Your task to perform on an android device: Go to notification settings Image 0: 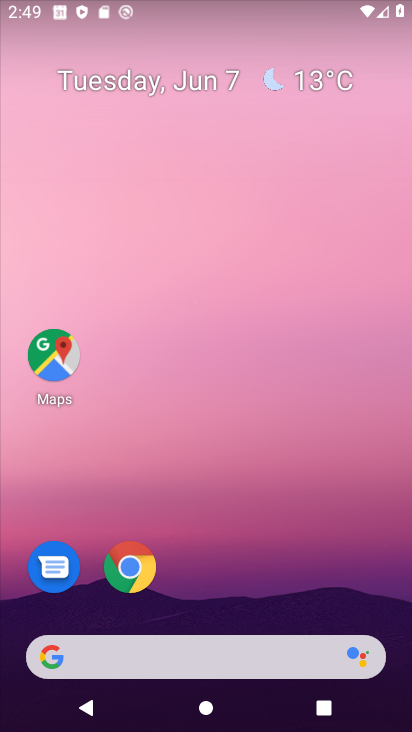
Step 0: press home button
Your task to perform on an android device: Go to notification settings Image 1: 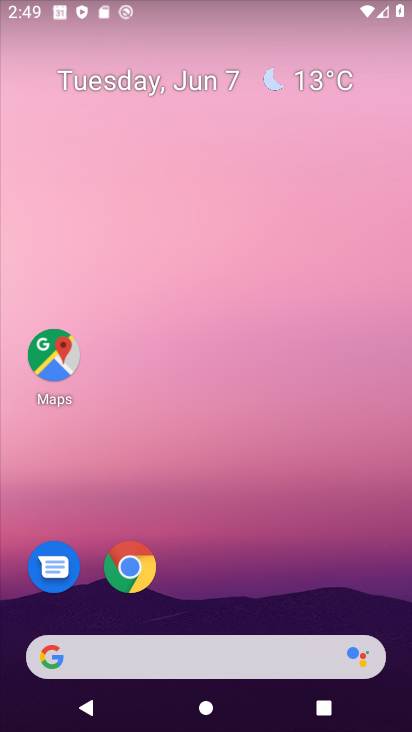
Step 1: click (216, 49)
Your task to perform on an android device: Go to notification settings Image 2: 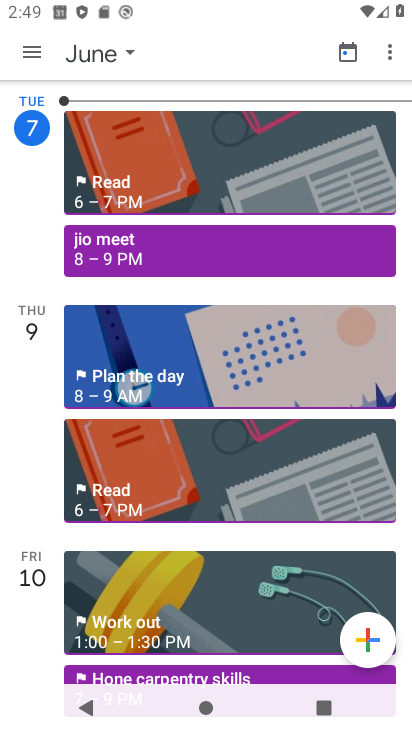
Step 2: press home button
Your task to perform on an android device: Go to notification settings Image 3: 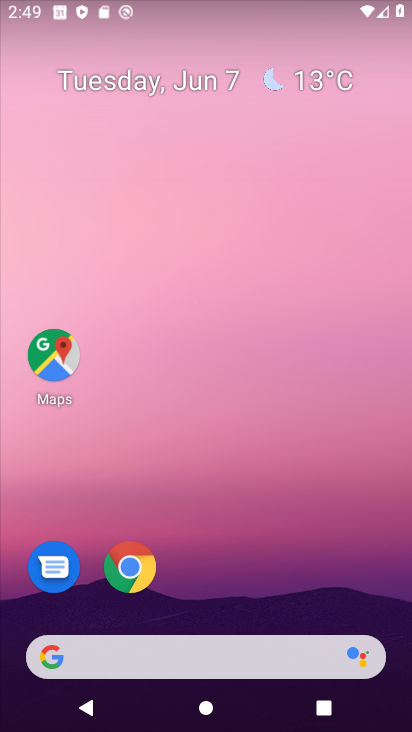
Step 3: drag from (322, 569) to (224, 139)
Your task to perform on an android device: Go to notification settings Image 4: 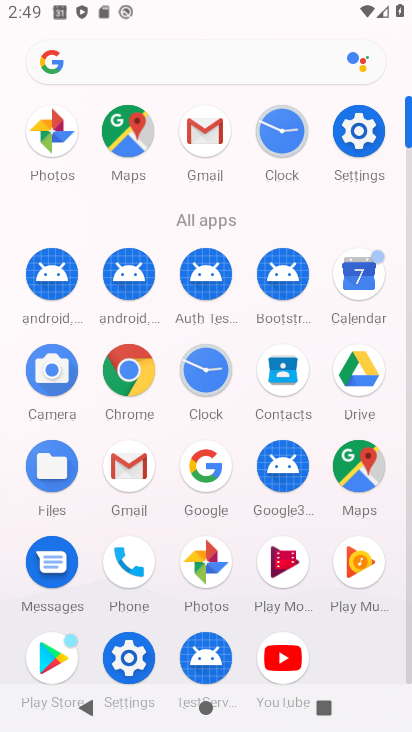
Step 4: click (126, 671)
Your task to perform on an android device: Go to notification settings Image 5: 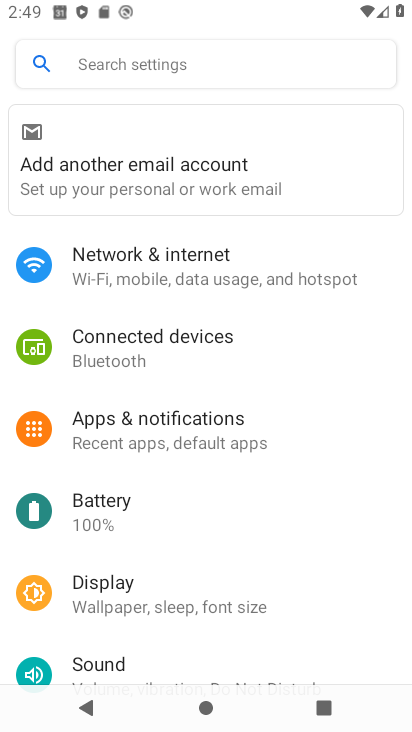
Step 5: click (116, 441)
Your task to perform on an android device: Go to notification settings Image 6: 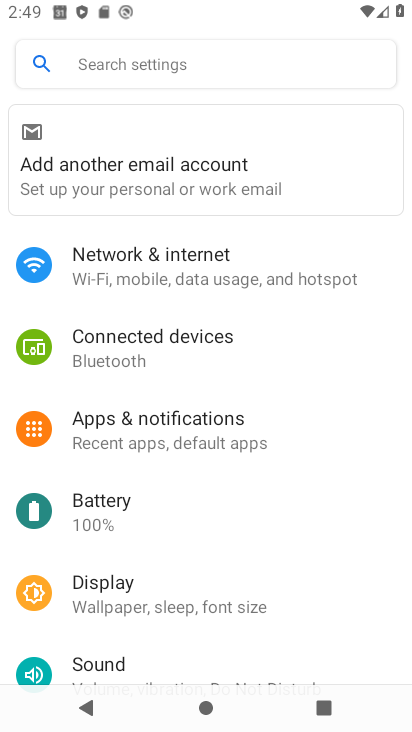
Step 6: click (116, 441)
Your task to perform on an android device: Go to notification settings Image 7: 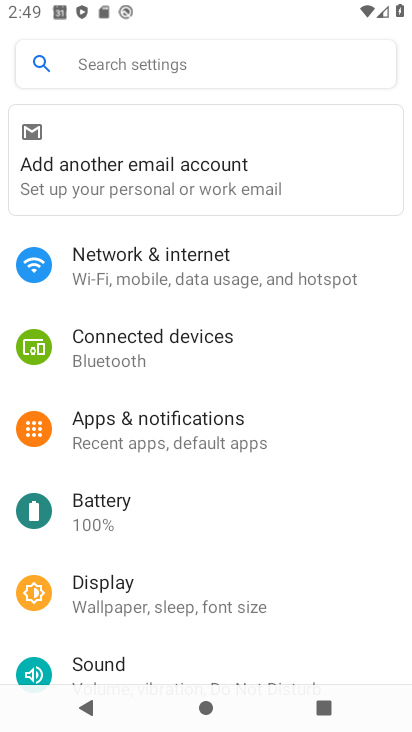
Step 7: click (116, 441)
Your task to perform on an android device: Go to notification settings Image 8: 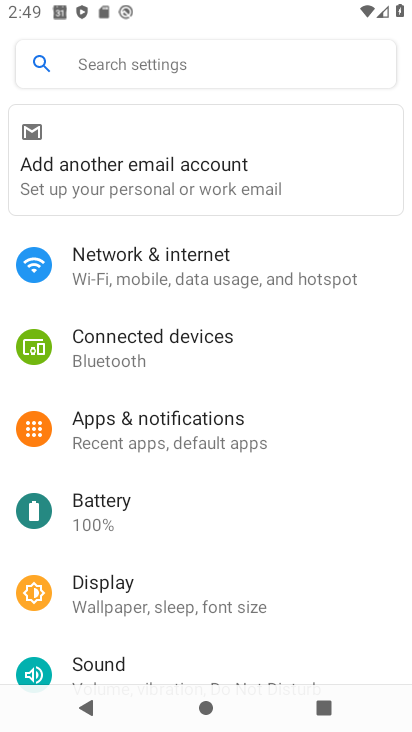
Step 8: click (116, 441)
Your task to perform on an android device: Go to notification settings Image 9: 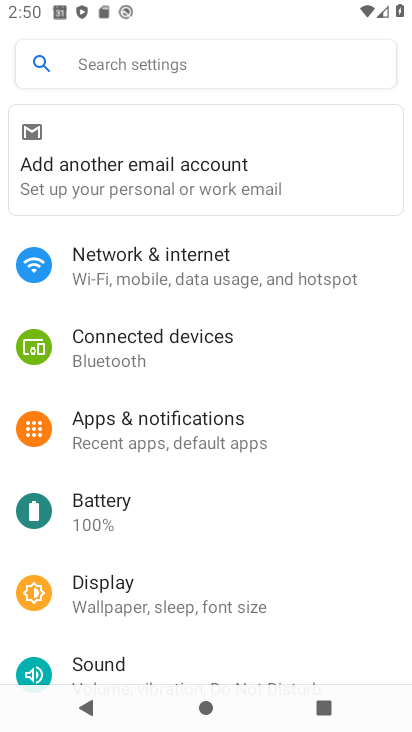
Step 9: click (186, 426)
Your task to perform on an android device: Go to notification settings Image 10: 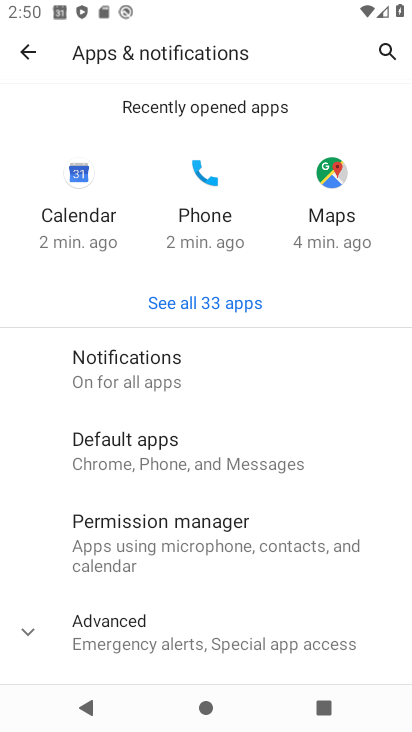
Step 10: click (219, 381)
Your task to perform on an android device: Go to notification settings Image 11: 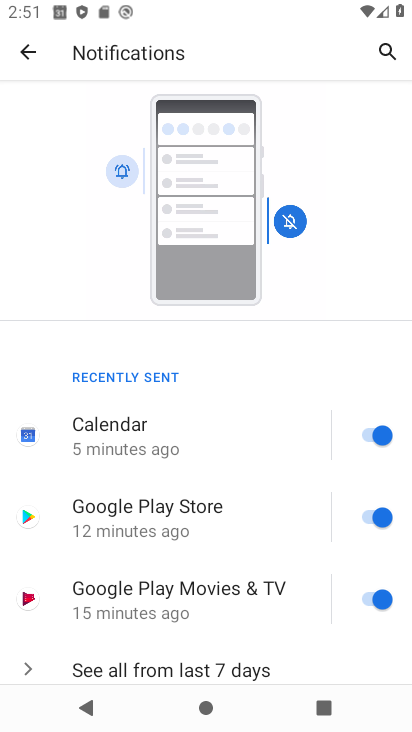
Step 11: task complete